Your task to perform on an android device: Go to wifi settings Image 0: 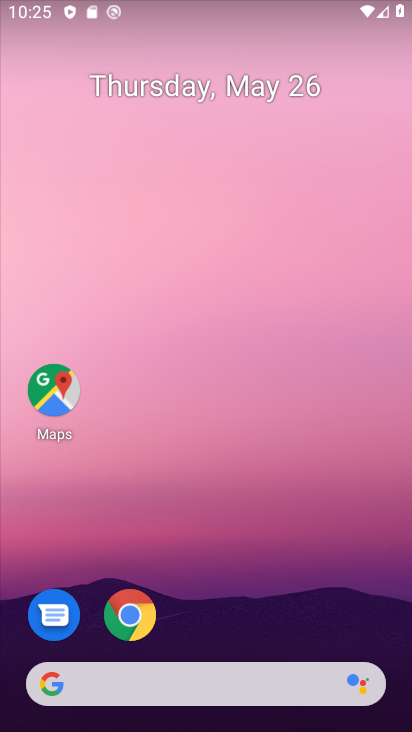
Step 0: drag from (239, 11) to (251, 404)
Your task to perform on an android device: Go to wifi settings Image 1: 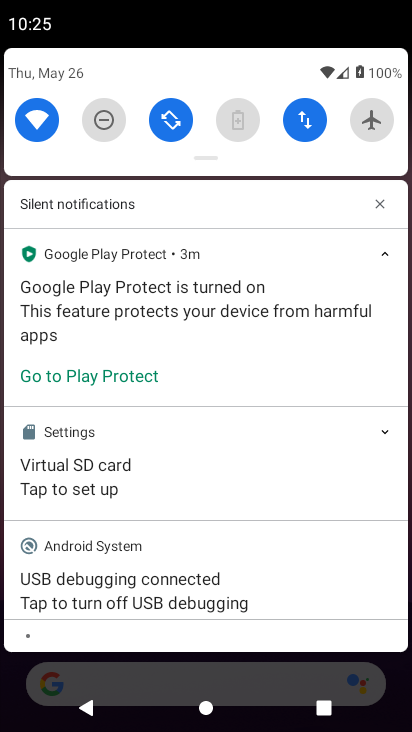
Step 1: click (46, 119)
Your task to perform on an android device: Go to wifi settings Image 2: 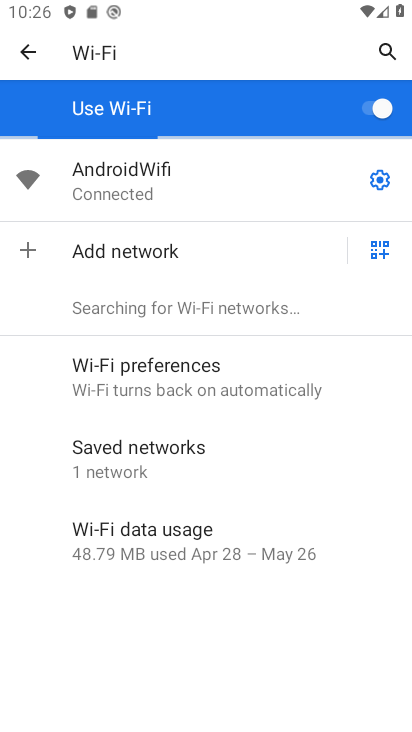
Step 2: task complete